Your task to perform on an android device: Go to accessibility settings Image 0: 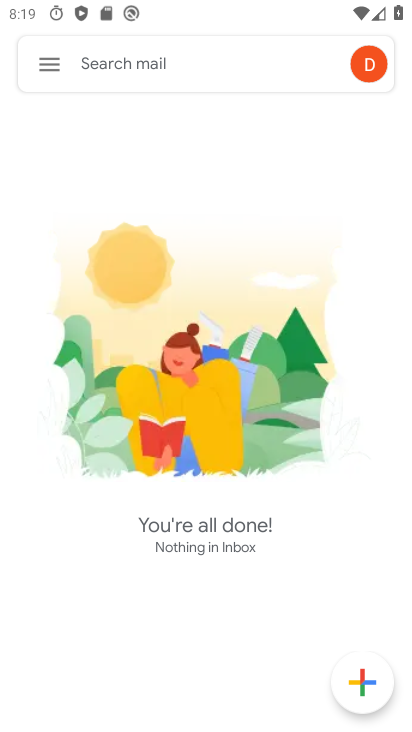
Step 0: press back button
Your task to perform on an android device: Go to accessibility settings Image 1: 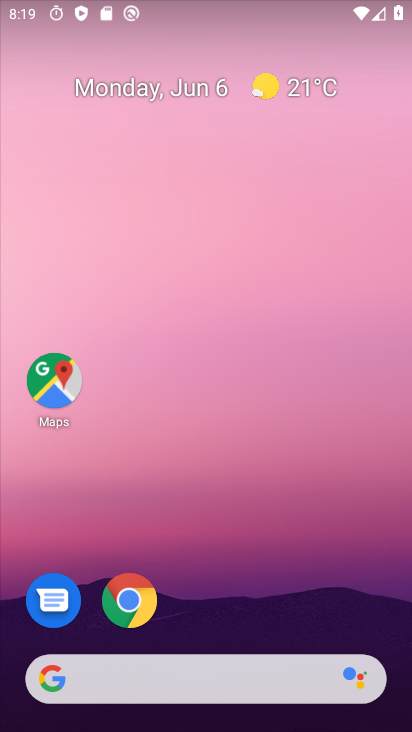
Step 1: drag from (246, 604) to (198, 19)
Your task to perform on an android device: Go to accessibility settings Image 2: 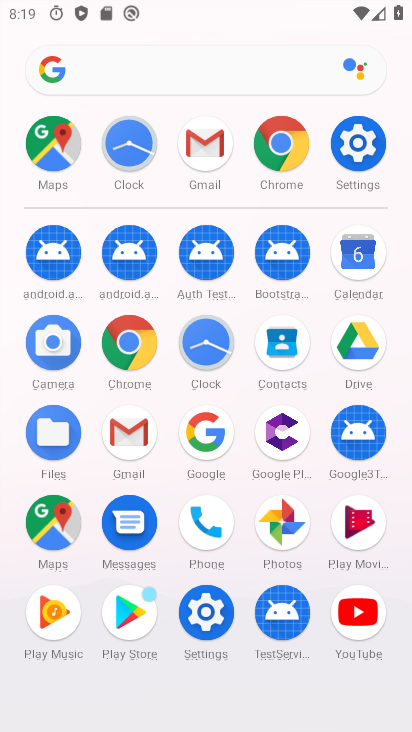
Step 2: click (360, 141)
Your task to perform on an android device: Go to accessibility settings Image 3: 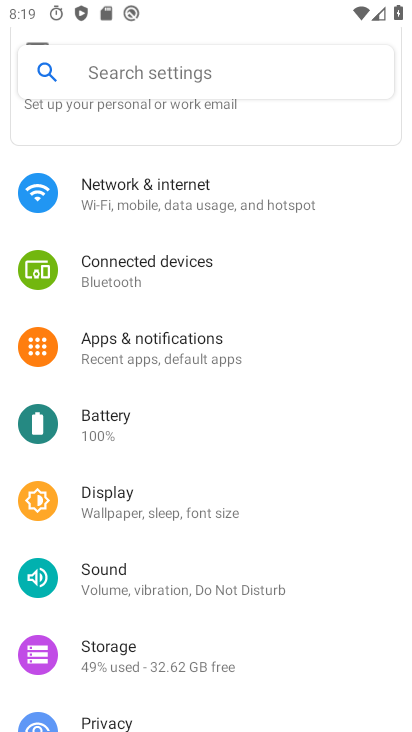
Step 3: drag from (243, 575) to (266, 200)
Your task to perform on an android device: Go to accessibility settings Image 4: 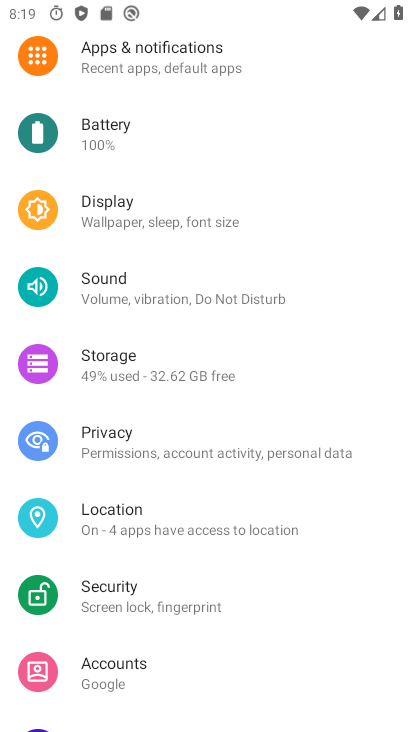
Step 4: drag from (251, 556) to (275, 174)
Your task to perform on an android device: Go to accessibility settings Image 5: 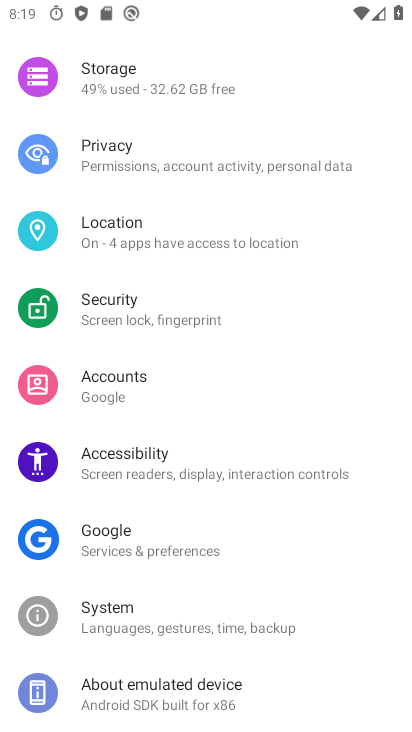
Step 5: click (216, 461)
Your task to perform on an android device: Go to accessibility settings Image 6: 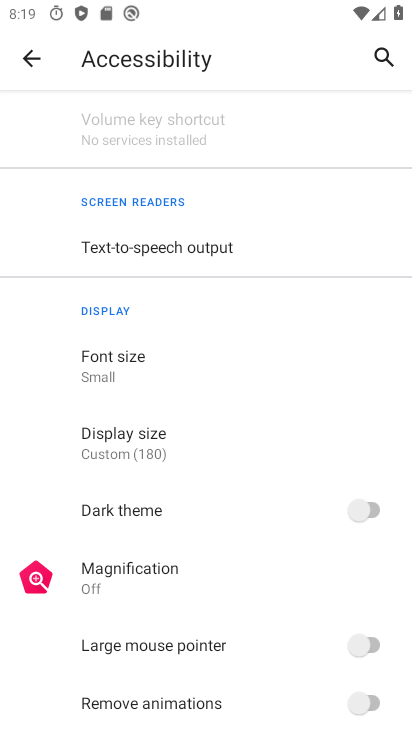
Step 6: task complete